Your task to perform on an android device: What's the weather today? Image 0: 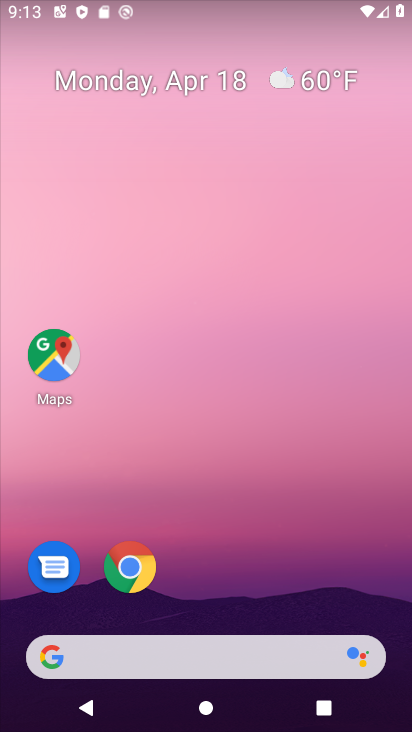
Step 0: click (200, 653)
Your task to perform on an android device: What's the weather today? Image 1: 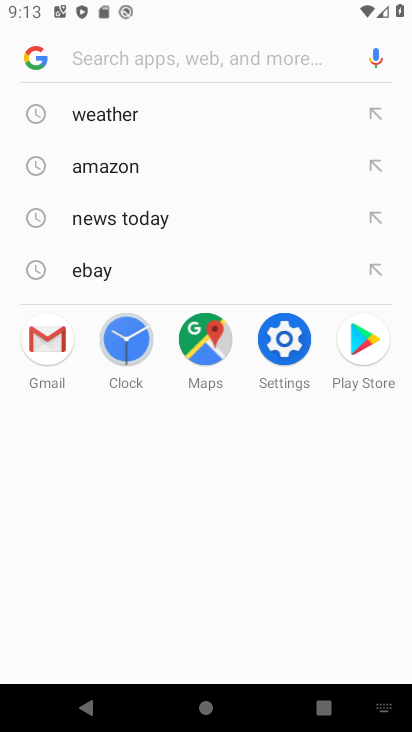
Step 1: type "weather"
Your task to perform on an android device: What's the weather today? Image 2: 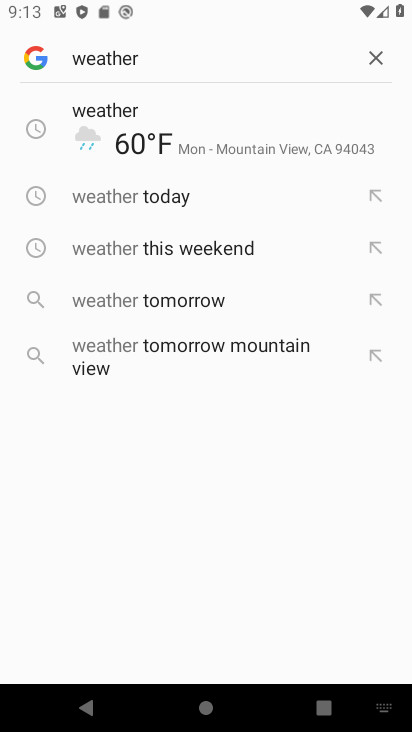
Step 2: click (152, 119)
Your task to perform on an android device: What's the weather today? Image 3: 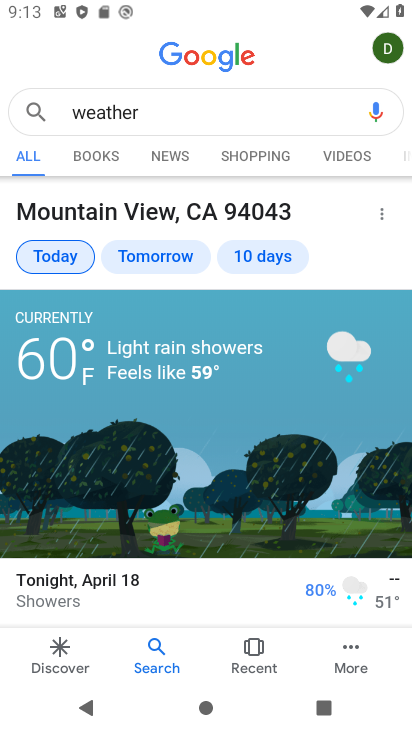
Step 3: task complete